Your task to perform on an android device: Open Google Maps Image 0: 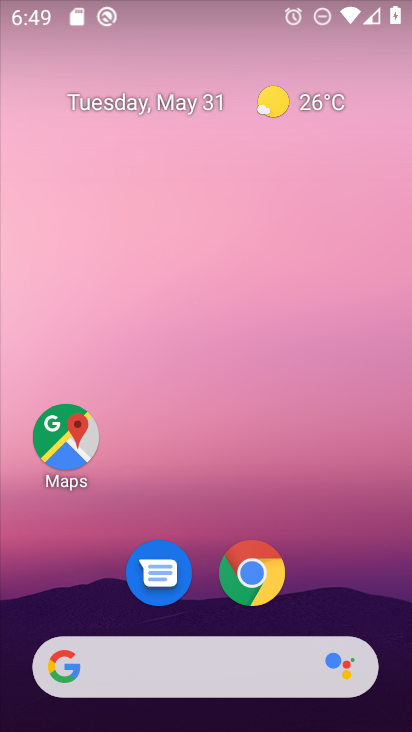
Step 0: drag from (391, 649) to (250, 13)
Your task to perform on an android device: Open Google Maps Image 1: 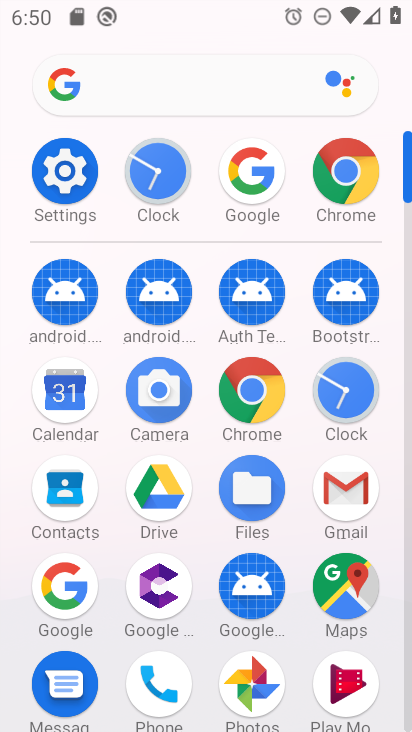
Step 1: click (335, 567)
Your task to perform on an android device: Open Google Maps Image 2: 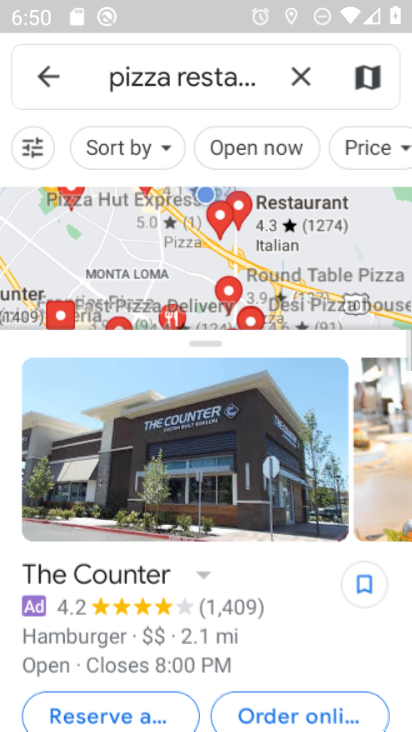
Step 2: click (297, 67)
Your task to perform on an android device: Open Google Maps Image 3: 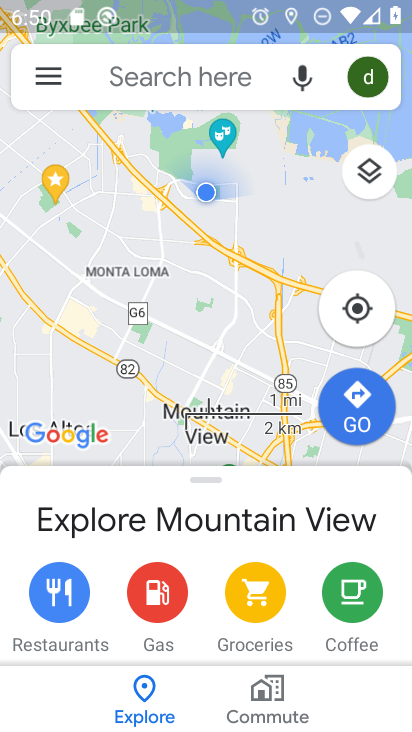
Step 3: task complete